Your task to perform on an android device: What's on my calendar today? Image 0: 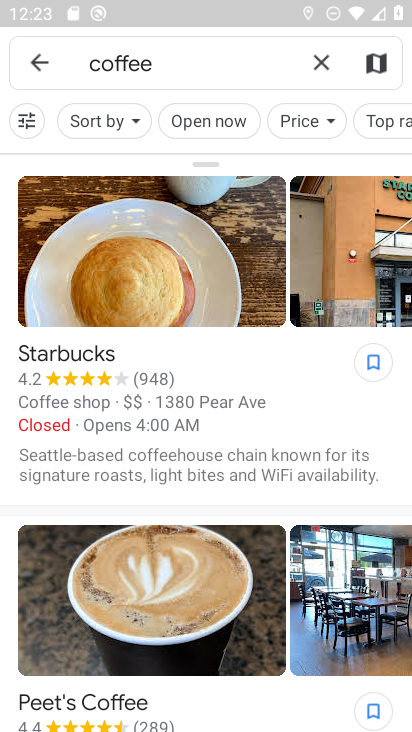
Step 0: press home button
Your task to perform on an android device: What's on my calendar today? Image 1: 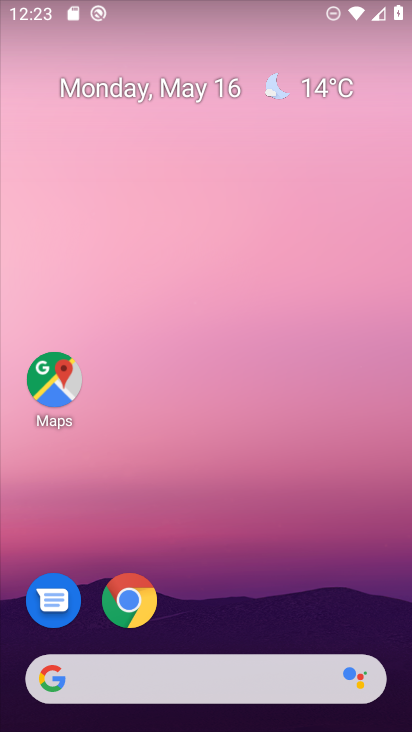
Step 1: drag from (395, 637) to (319, 74)
Your task to perform on an android device: What's on my calendar today? Image 2: 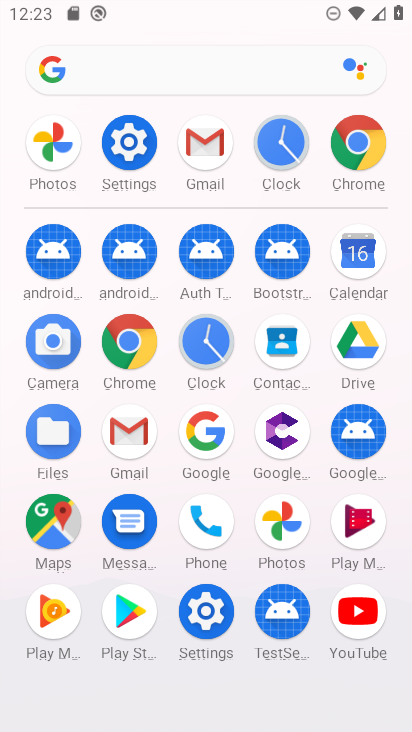
Step 2: click (357, 251)
Your task to perform on an android device: What's on my calendar today? Image 3: 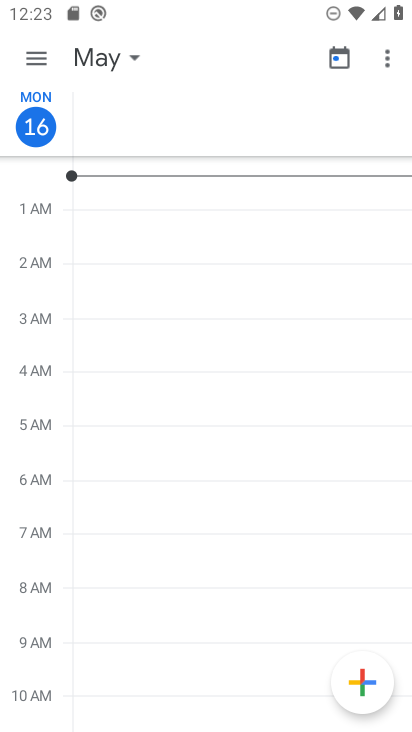
Step 3: click (33, 57)
Your task to perform on an android device: What's on my calendar today? Image 4: 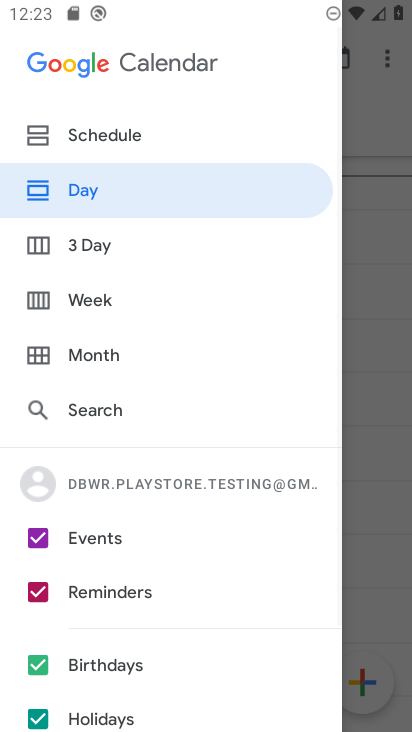
Step 4: click (134, 189)
Your task to perform on an android device: What's on my calendar today? Image 5: 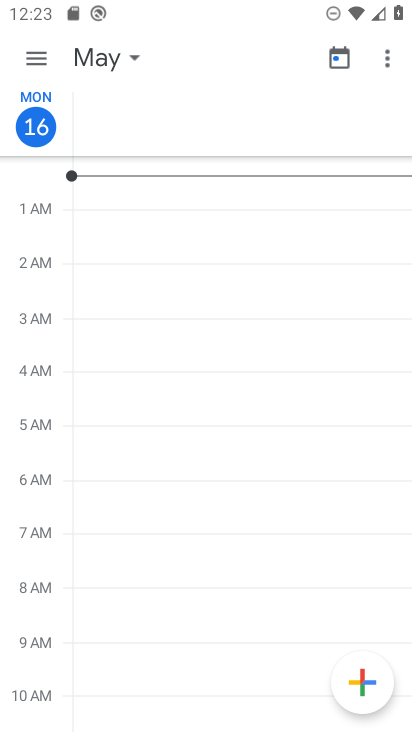
Step 5: click (33, 54)
Your task to perform on an android device: What's on my calendar today? Image 6: 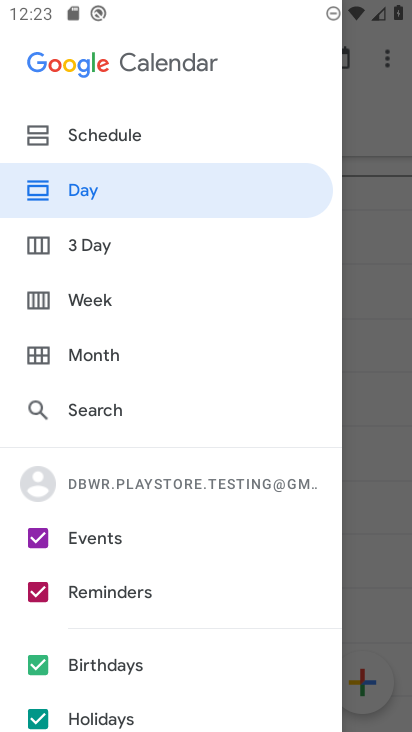
Step 6: click (108, 196)
Your task to perform on an android device: What's on my calendar today? Image 7: 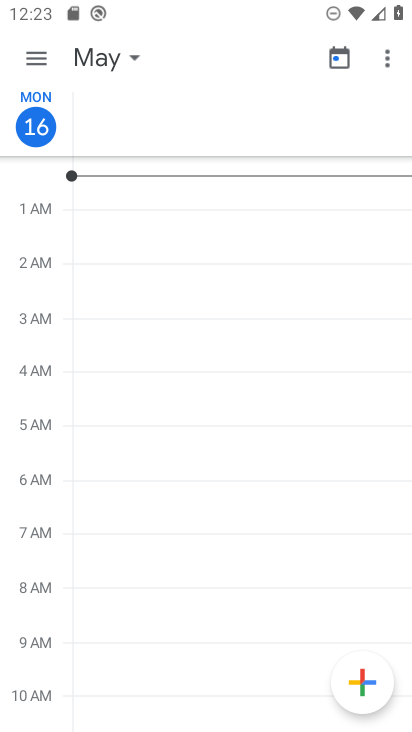
Step 7: click (132, 55)
Your task to perform on an android device: What's on my calendar today? Image 8: 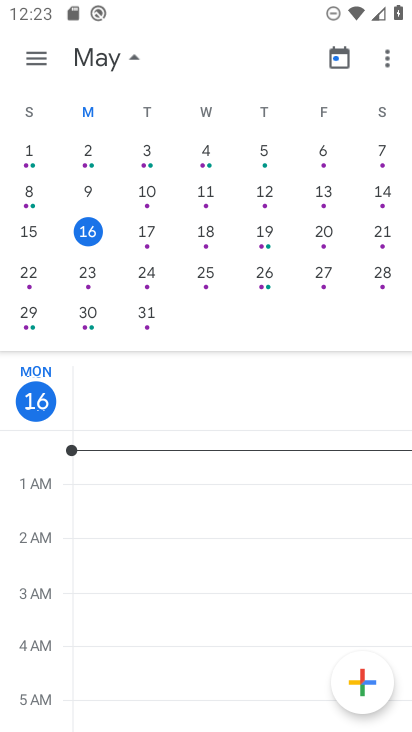
Step 8: task complete